Your task to perform on an android device: Show me popular videos on Youtube Image 0: 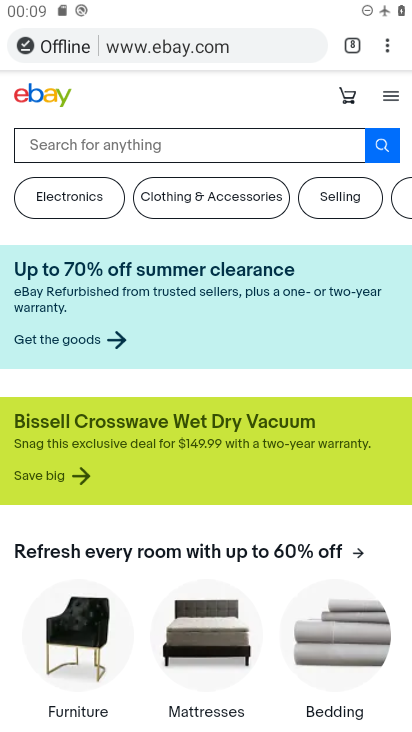
Step 0: press home button
Your task to perform on an android device: Show me popular videos on Youtube Image 1: 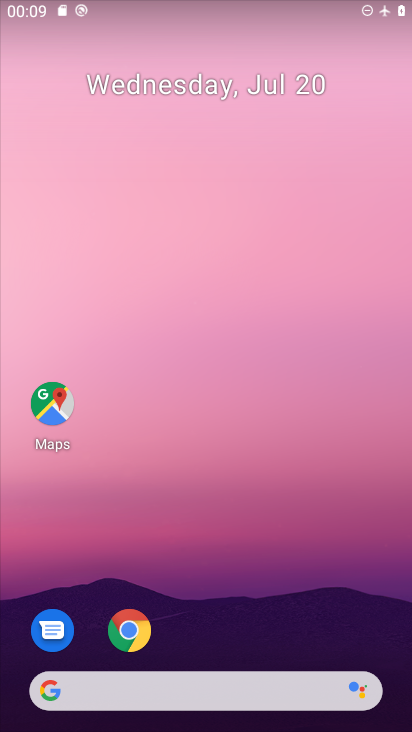
Step 1: drag from (240, 628) to (267, 154)
Your task to perform on an android device: Show me popular videos on Youtube Image 2: 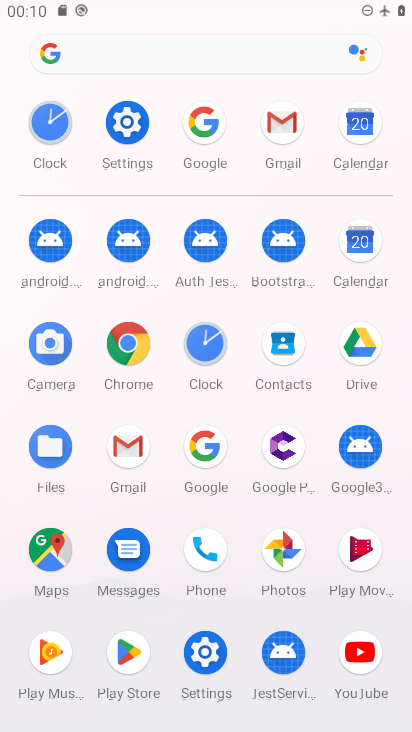
Step 2: click (345, 662)
Your task to perform on an android device: Show me popular videos on Youtube Image 3: 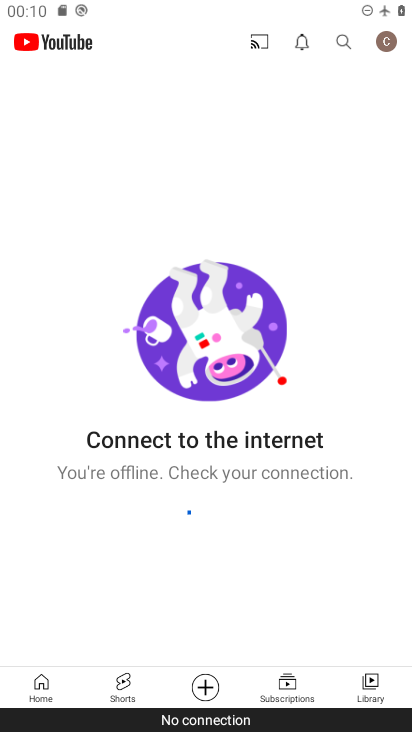
Step 3: click (339, 43)
Your task to perform on an android device: Show me popular videos on Youtube Image 4: 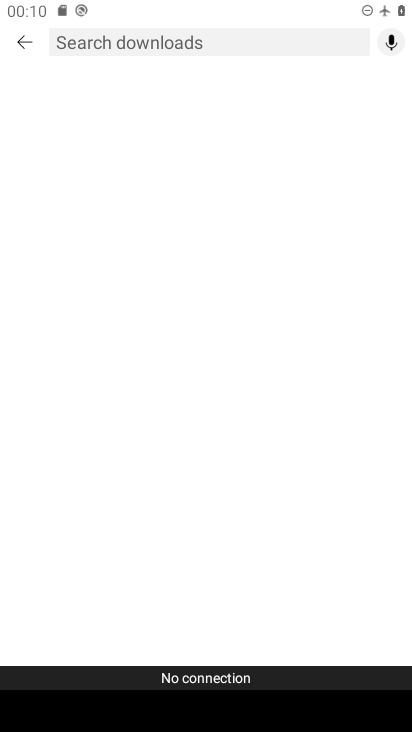
Step 4: click (339, 43)
Your task to perform on an android device: Show me popular videos on Youtube Image 5: 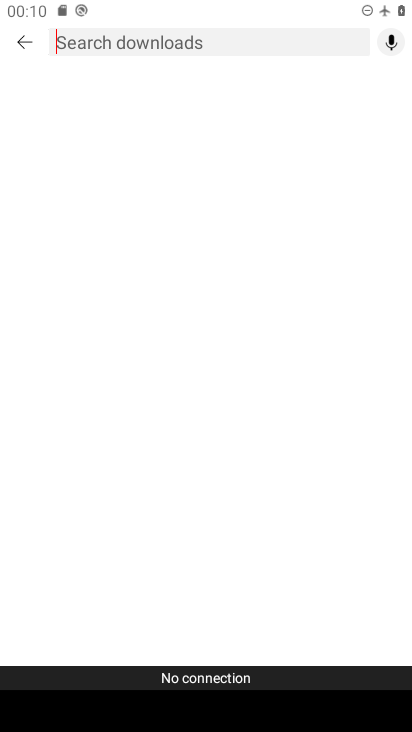
Step 5: type "popular videos"
Your task to perform on an android device: Show me popular videos on Youtube Image 6: 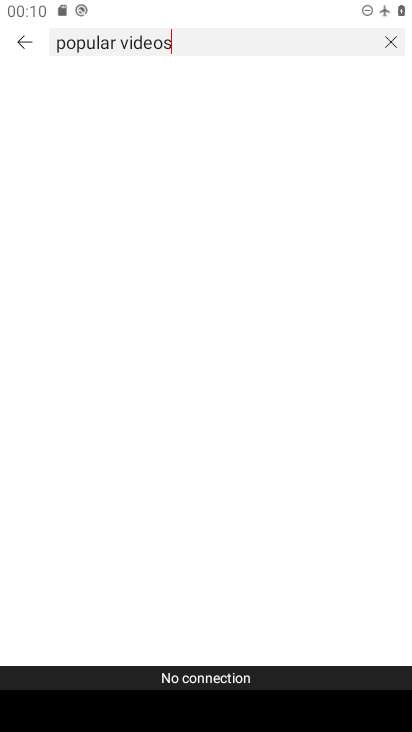
Step 6: type ""
Your task to perform on an android device: Show me popular videos on Youtube Image 7: 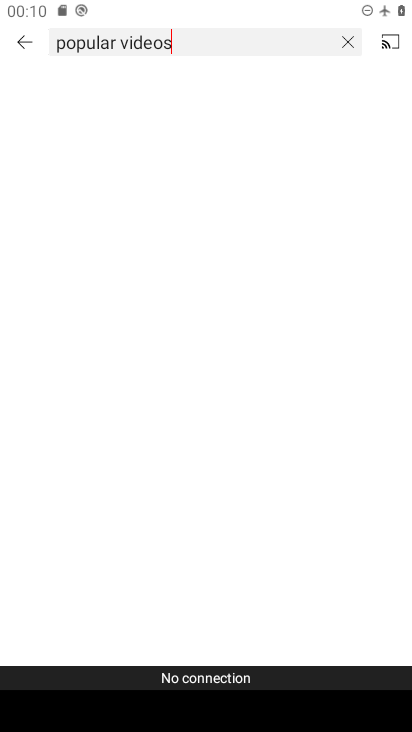
Step 7: task complete